Your task to perform on an android device: Is it going to rain tomorrow? Image 0: 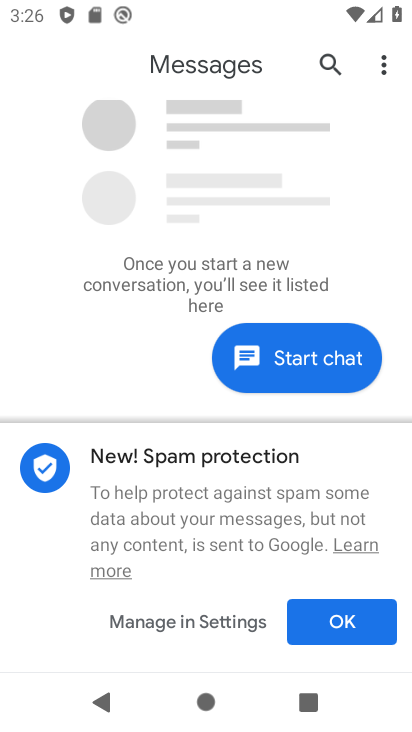
Step 0: press home button
Your task to perform on an android device: Is it going to rain tomorrow? Image 1: 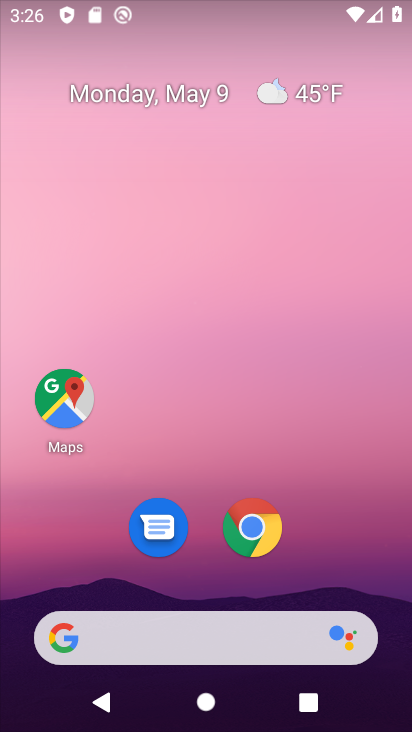
Step 1: drag from (353, 537) to (304, 217)
Your task to perform on an android device: Is it going to rain tomorrow? Image 2: 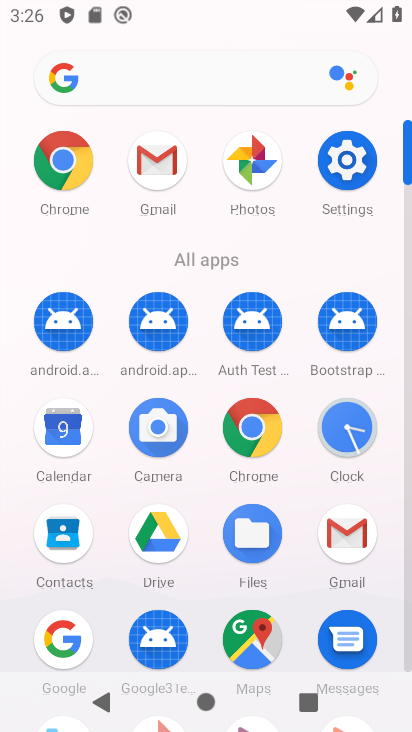
Step 2: click (70, 164)
Your task to perform on an android device: Is it going to rain tomorrow? Image 3: 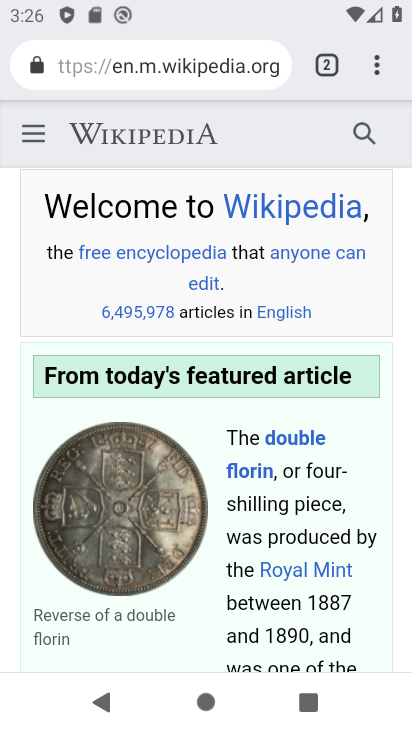
Step 3: click (261, 83)
Your task to perform on an android device: Is it going to rain tomorrow? Image 4: 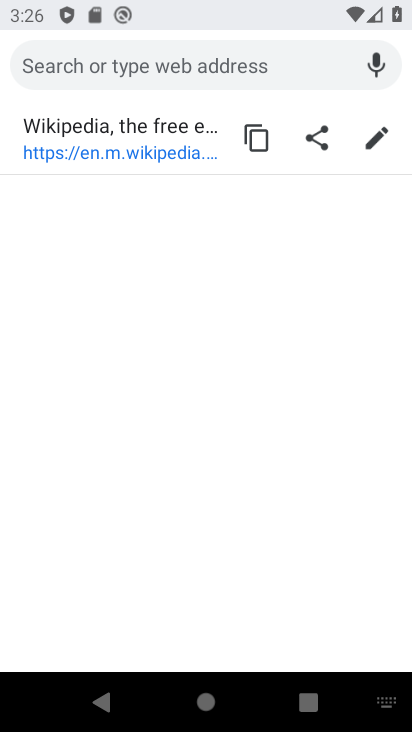
Step 4: type "Is it going to rain tomorrow?"
Your task to perform on an android device: Is it going to rain tomorrow? Image 5: 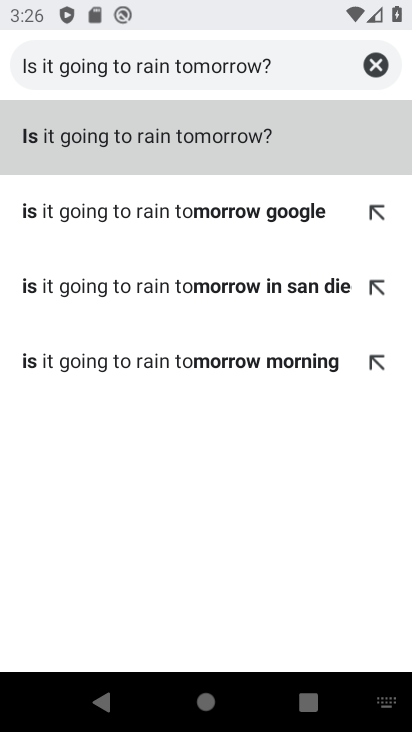
Step 5: click (236, 140)
Your task to perform on an android device: Is it going to rain tomorrow? Image 6: 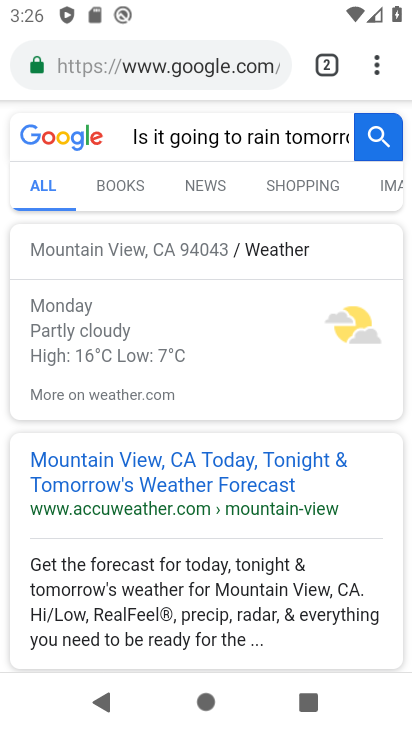
Step 6: task complete